Your task to perform on an android device: When is my next appointment? Image 0: 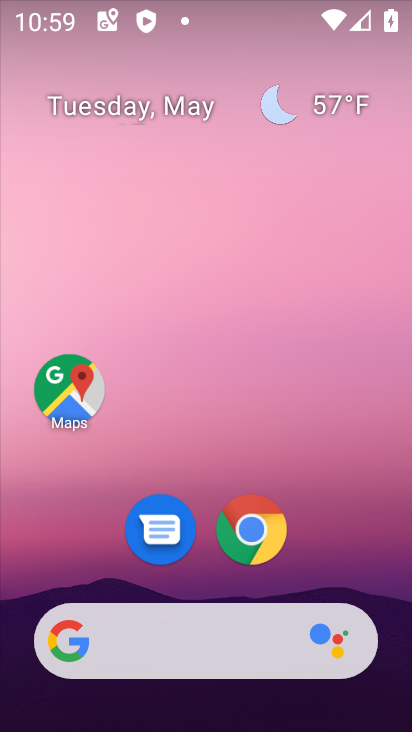
Step 0: click (157, 92)
Your task to perform on an android device: When is my next appointment? Image 1: 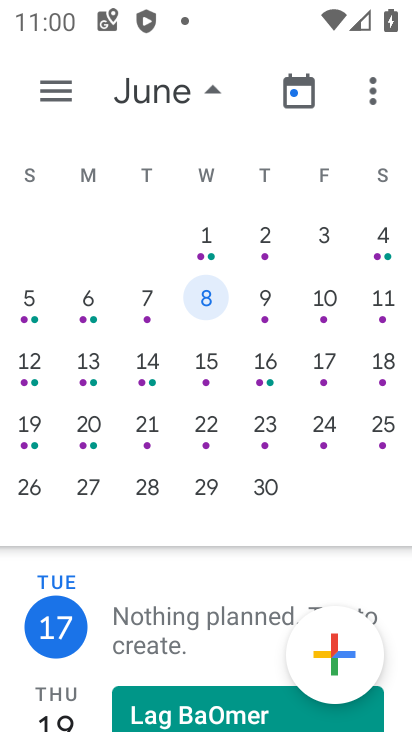
Step 1: task complete